Your task to perform on an android device: Check the news Image 0: 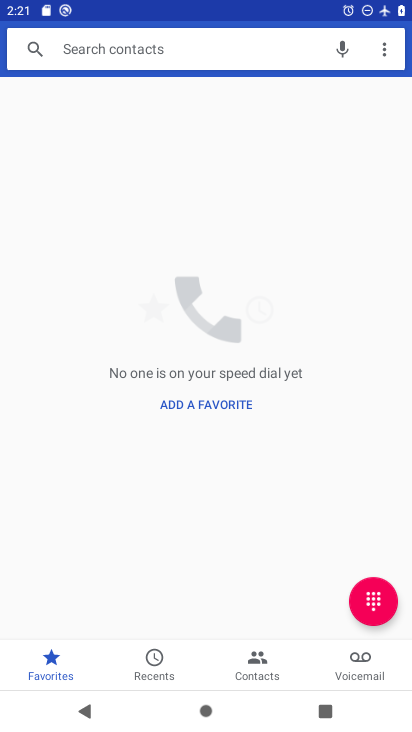
Step 0: press home button
Your task to perform on an android device: Check the news Image 1: 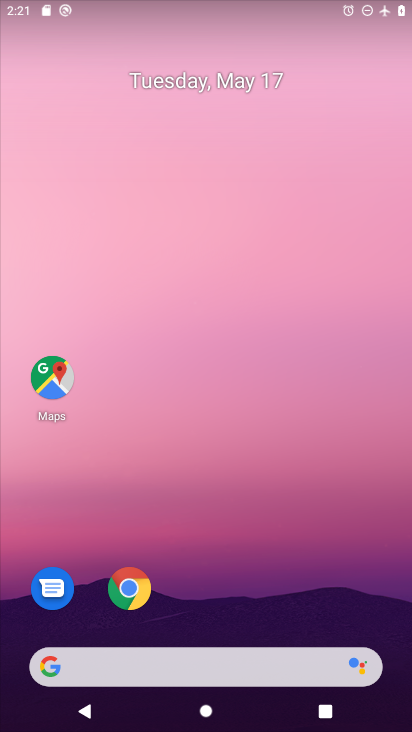
Step 1: click (150, 584)
Your task to perform on an android device: Check the news Image 2: 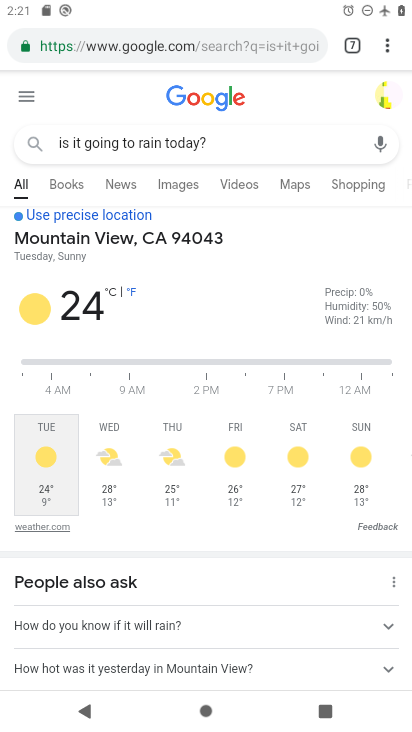
Step 2: click (350, 47)
Your task to perform on an android device: Check the news Image 3: 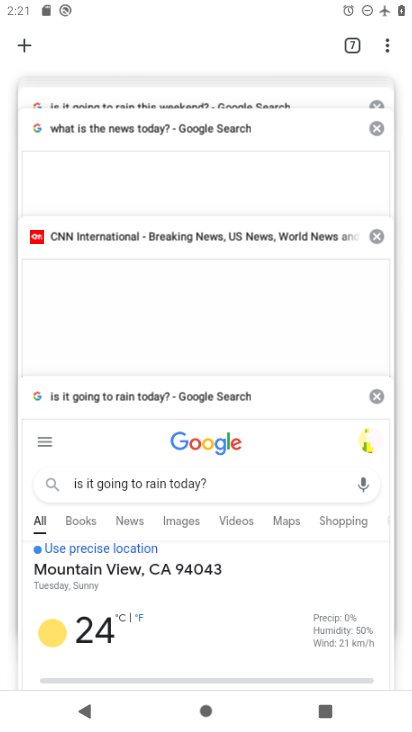
Step 3: drag from (157, 169) to (155, 452)
Your task to perform on an android device: Check the news Image 4: 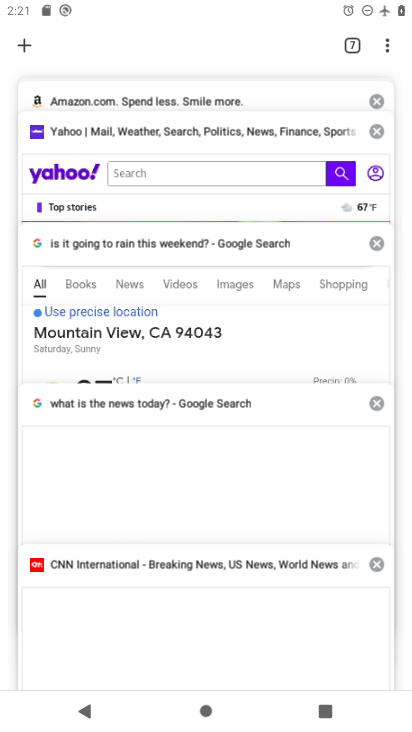
Step 4: click (73, 451)
Your task to perform on an android device: Check the news Image 5: 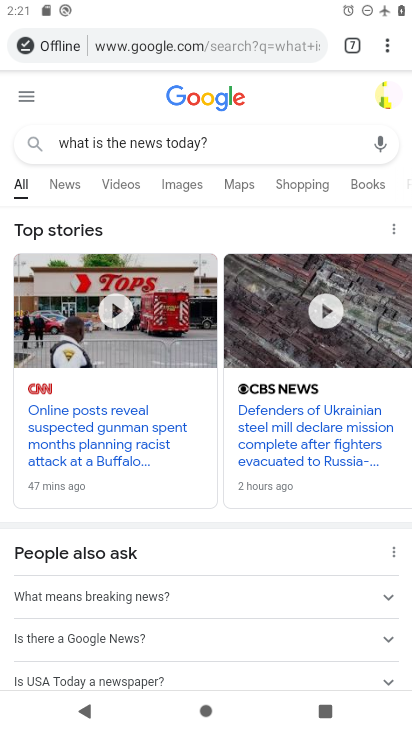
Step 5: task complete